Your task to perform on an android device: Show me recent news Image 0: 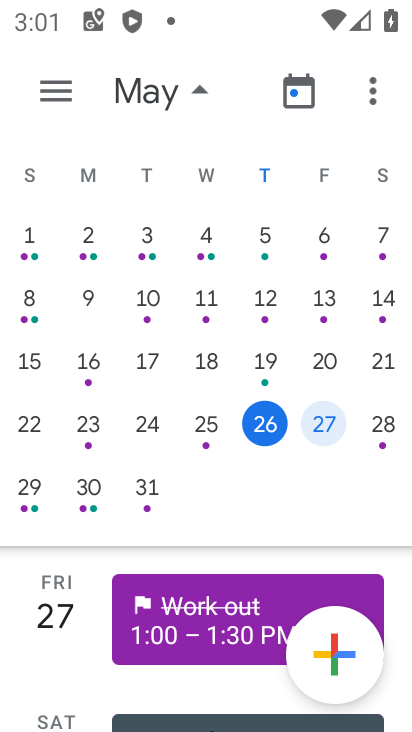
Step 0: press home button
Your task to perform on an android device: Show me recent news Image 1: 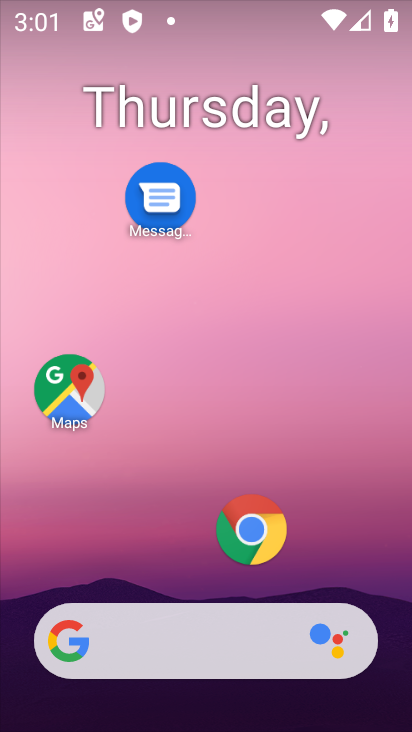
Step 1: click (243, 525)
Your task to perform on an android device: Show me recent news Image 2: 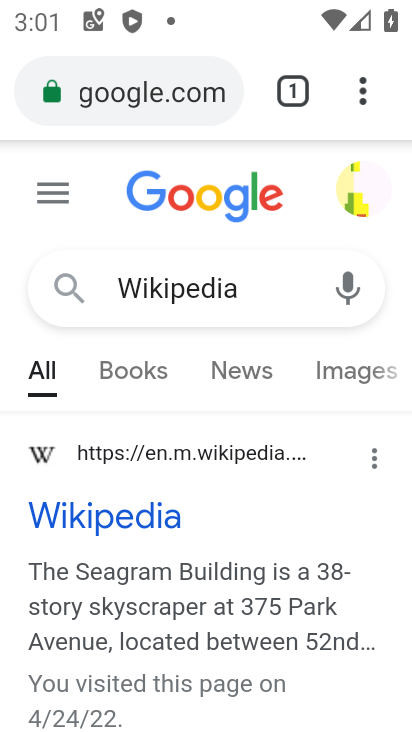
Step 2: click (141, 100)
Your task to perform on an android device: Show me recent news Image 3: 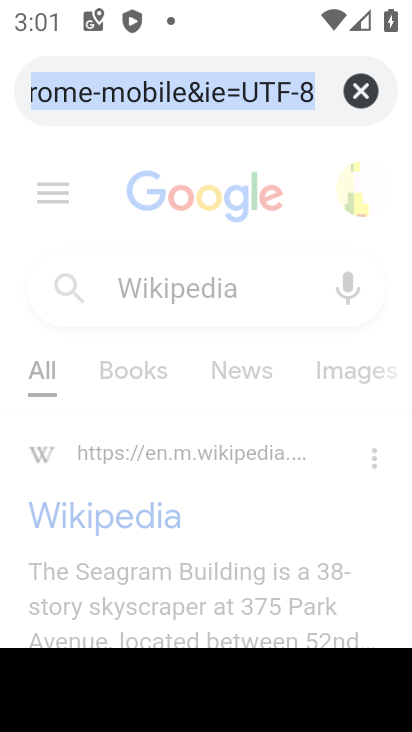
Step 3: type "recent news"
Your task to perform on an android device: Show me recent news Image 4: 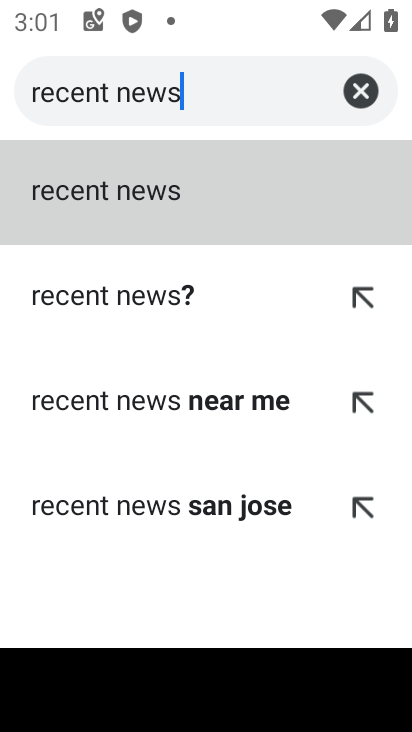
Step 4: click (173, 209)
Your task to perform on an android device: Show me recent news Image 5: 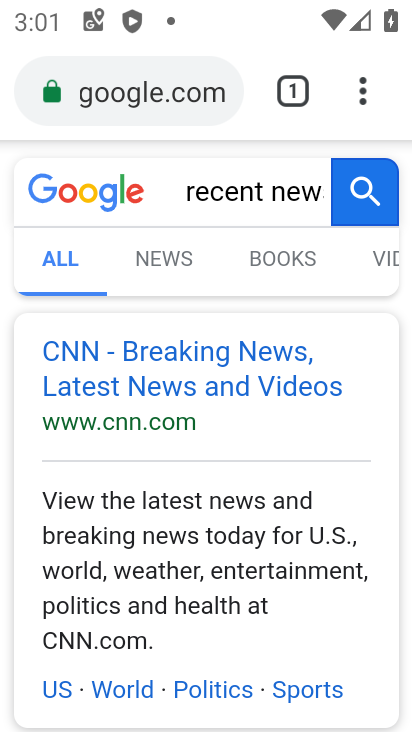
Step 5: task complete